Your task to perform on an android device: Go to Amazon Image 0: 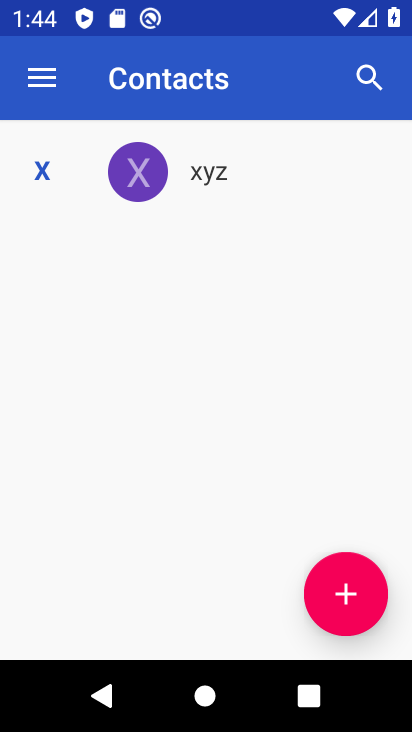
Step 0: press home button
Your task to perform on an android device: Go to Amazon Image 1: 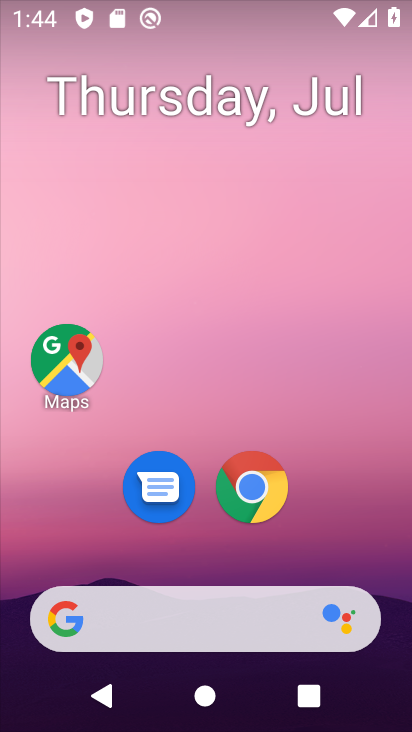
Step 1: drag from (362, 538) to (368, 64)
Your task to perform on an android device: Go to Amazon Image 2: 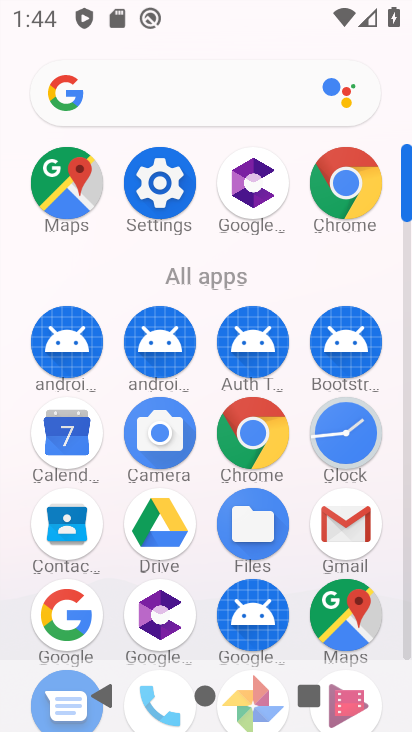
Step 2: click (274, 428)
Your task to perform on an android device: Go to Amazon Image 3: 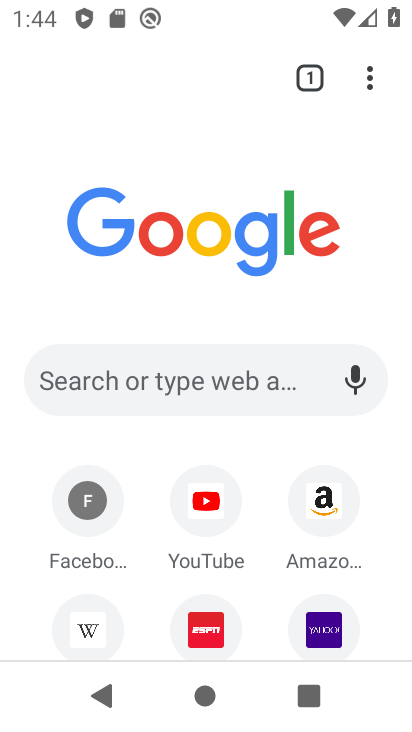
Step 3: click (236, 391)
Your task to perform on an android device: Go to Amazon Image 4: 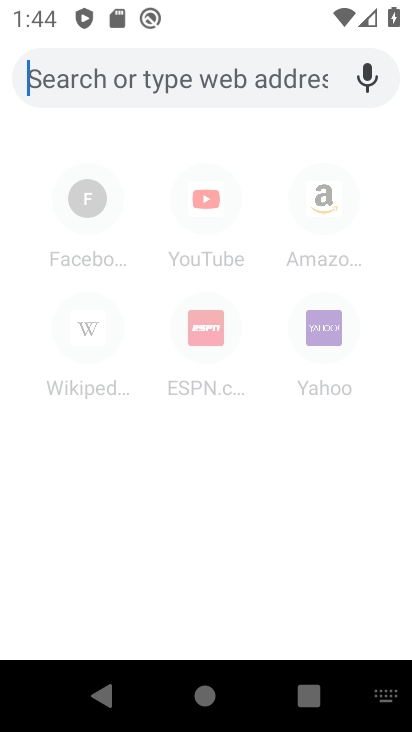
Step 4: type "amazon"
Your task to perform on an android device: Go to Amazon Image 5: 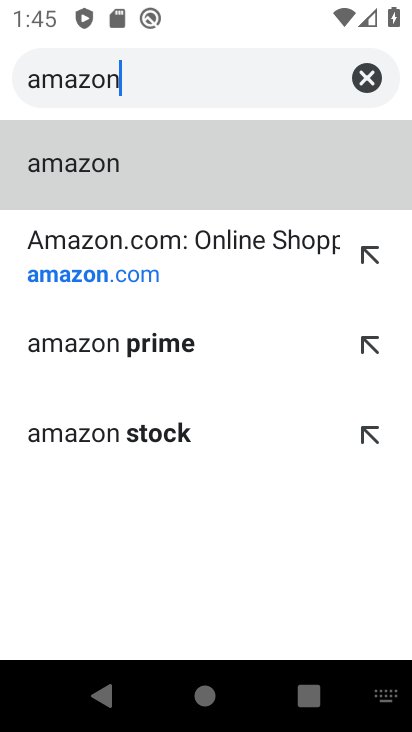
Step 5: click (179, 254)
Your task to perform on an android device: Go to Amazon Image 6: 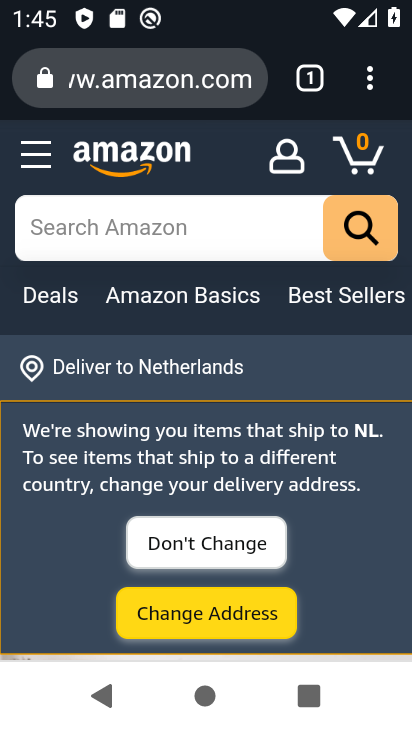
Step 6: task complete